Your task to perform on an android device: search for starred emails in the gmail app Image 0: 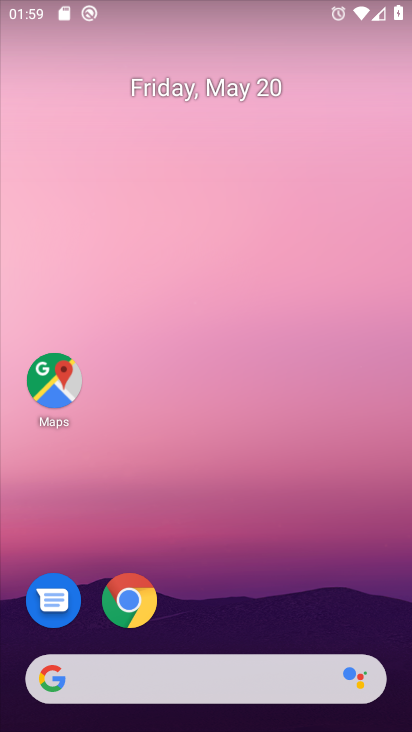
Step 0: drag from (216, 618) to (244, 102)
Your task to perform on an android device: search for starred emails in the gmail app Image 1: 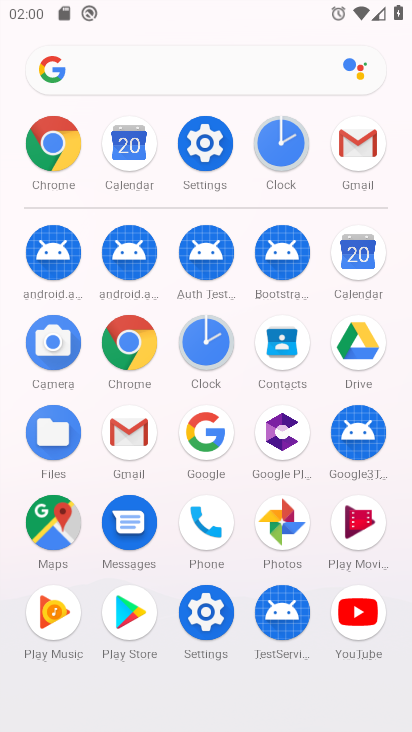
Step 1: click (139, 443)
Your task to perform on an android device: search for starred emails in the gmail app Image 2: 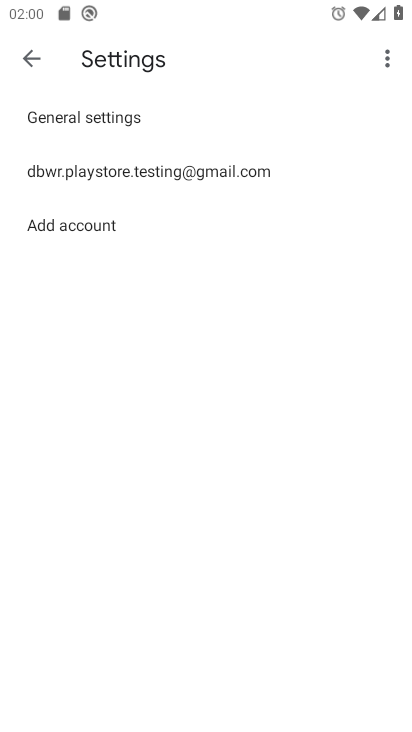
Step 2: click (36, 59)
Your task to perform on an android device: search for starred emails in the gmail app Image 3: 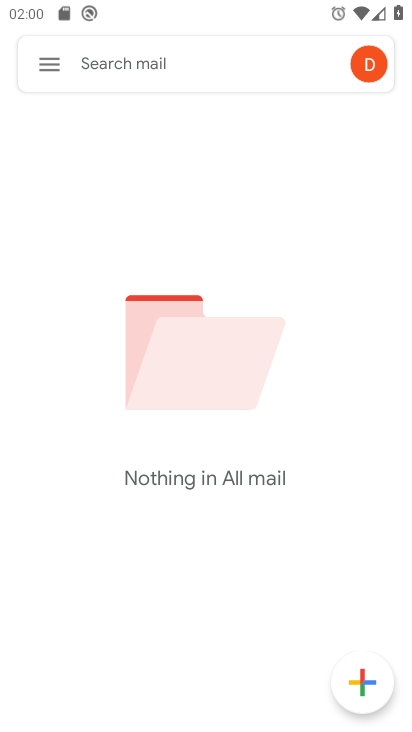
Step 3: click (49, 61)
Your task to perform on an android device: search for starred emails in the gmail app Image 4: 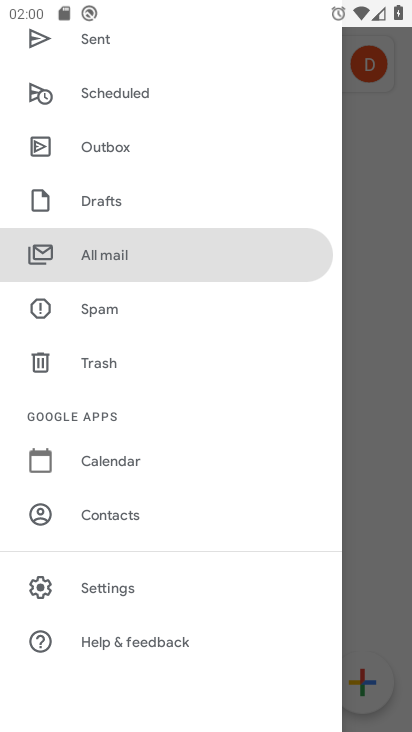
Step 4: drag from (120, 135) to (125, 375)
Your task to perform on an android device: search for starred emails in the gmail app Image 5: 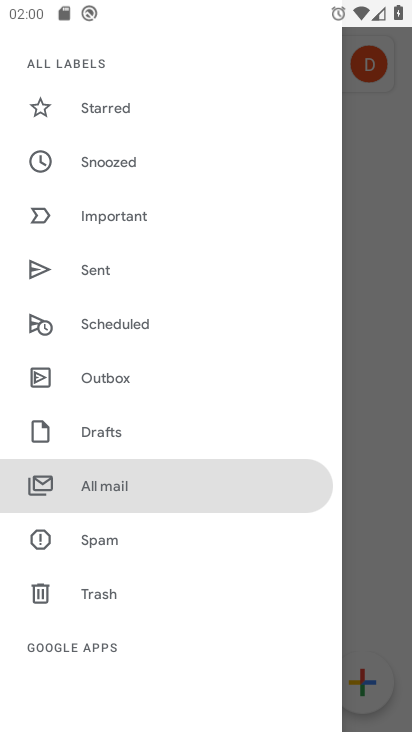
Step 5: click (117, 106)
Your task to perform on an android device: search for starred emails in the gmail app Image 6: 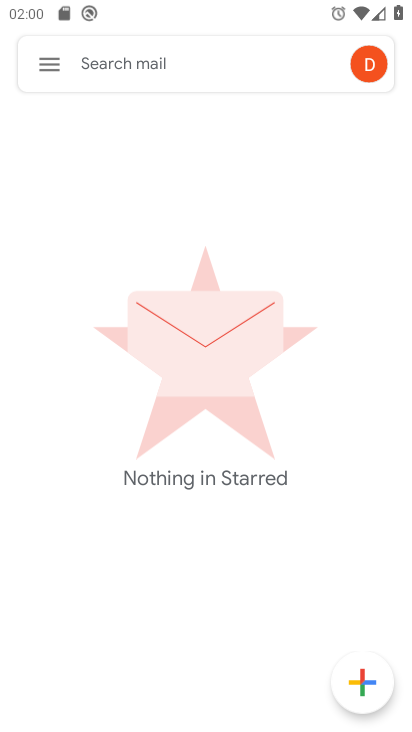
Step 6: task complete